Your task to perform on an android device: uninstall "The Home Depot" Image 0: 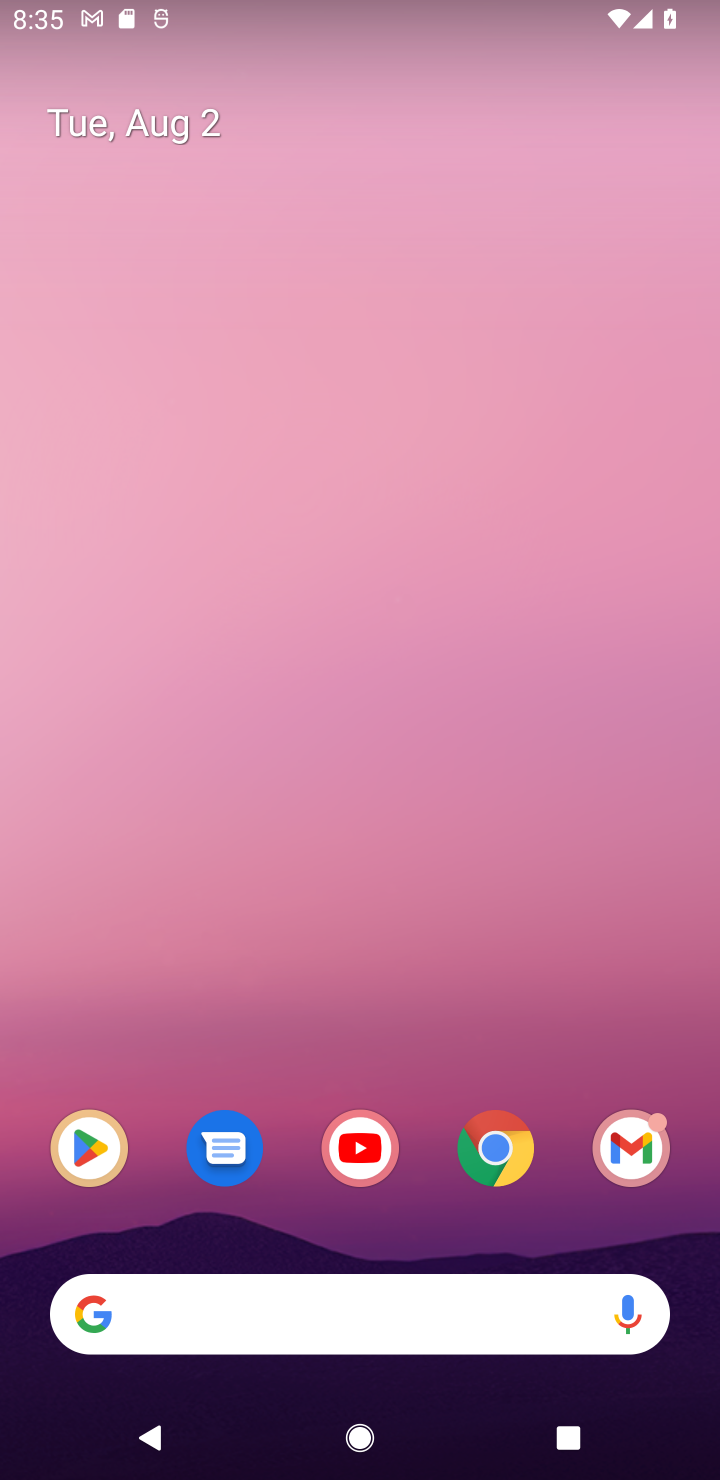
Step 0: drag from (366, 662) to (172, 28)
Your task to perform on an android device: uninstall "The Home Depot" Image 1: 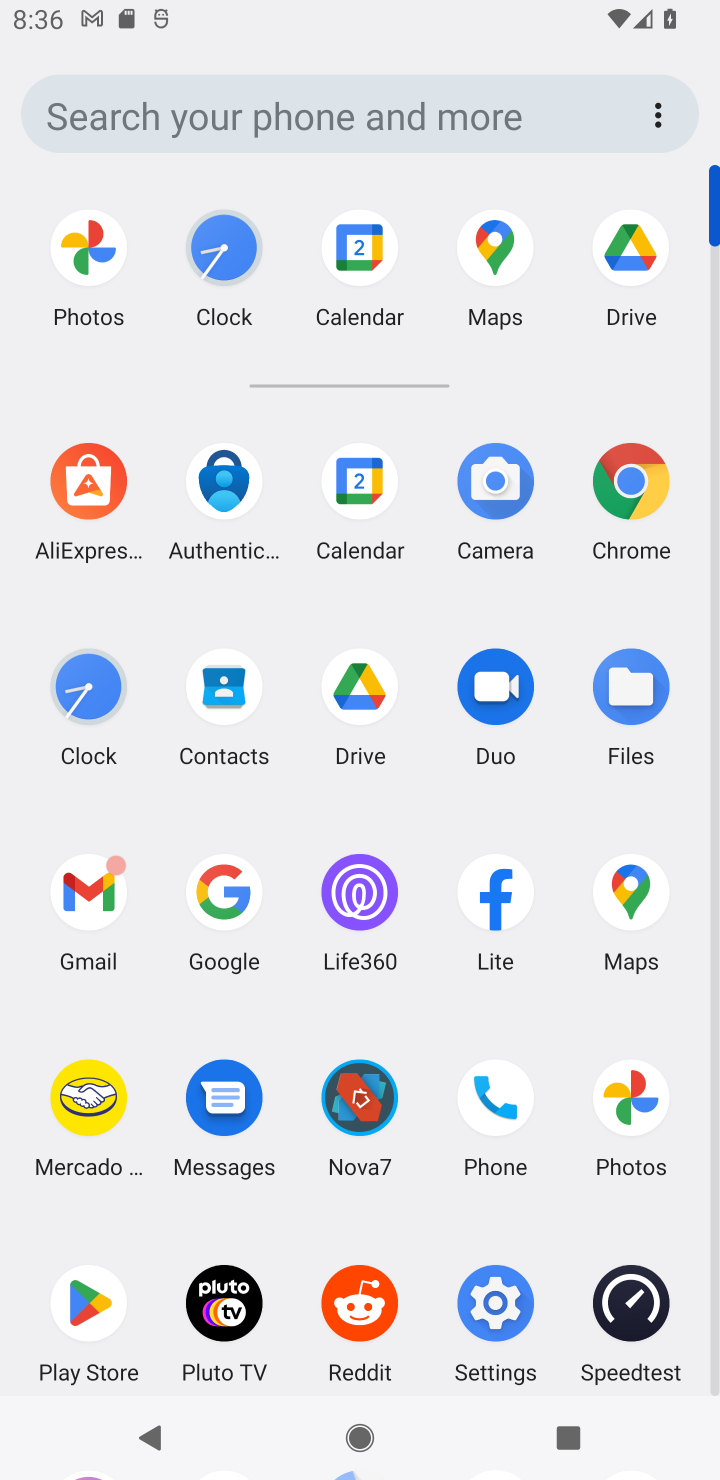
Step 1: click (72, 1293)
Your task to perform on an android device: uninstall "The Home Depot" Image 2: 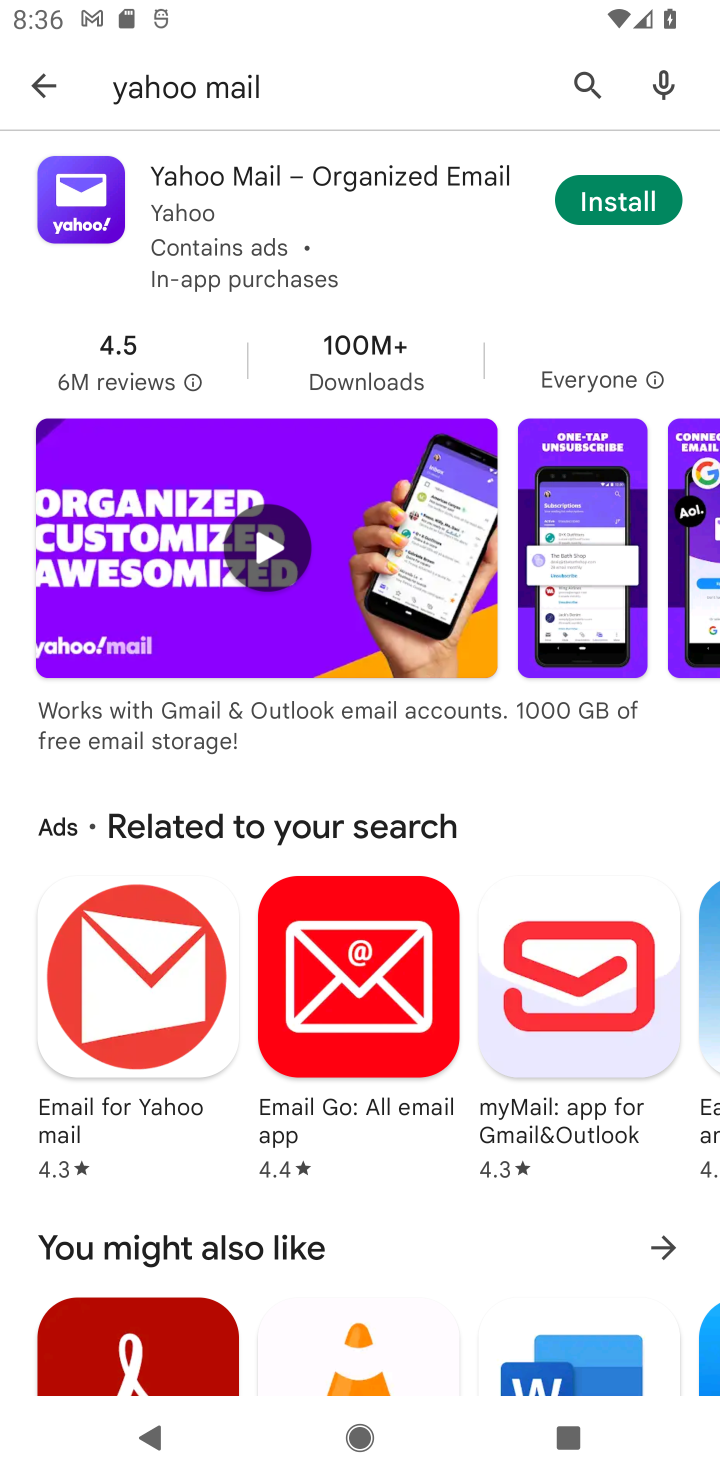
Step 2: press back button
Your task to perform on an android device: uninstall "The Home Depot" Image 3: 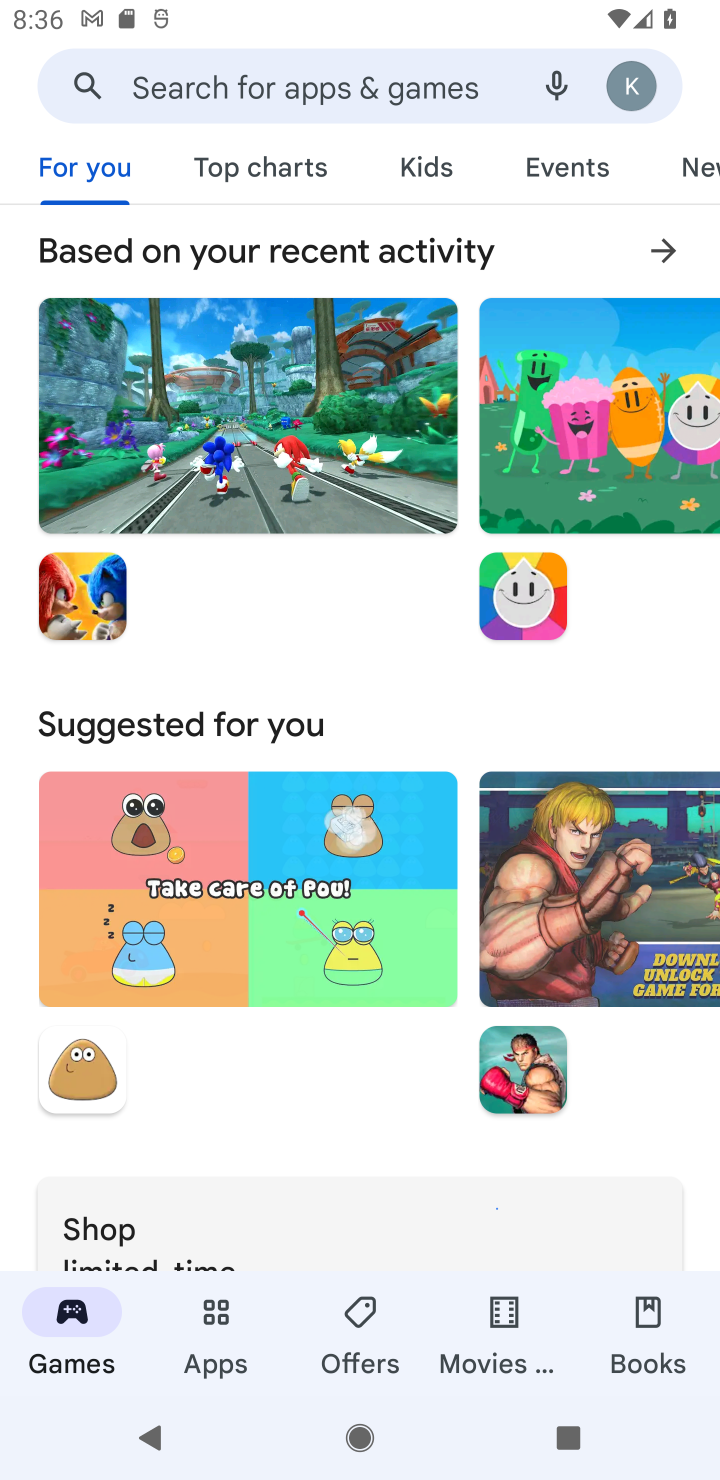
Step 3: click (256, 87)
Your task to perform on an android device: uninstall "The Home Depot" Image 4: 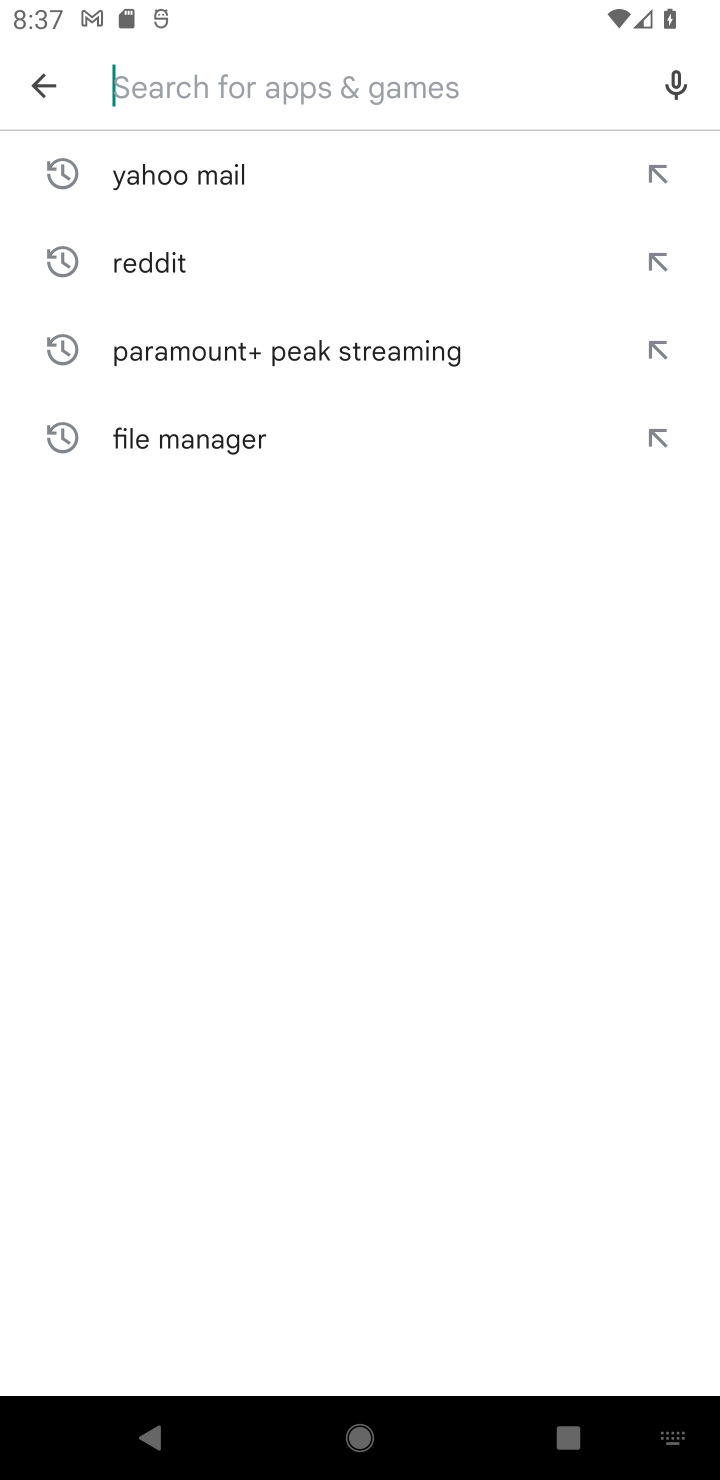
Step 4: type "The Home Depot"
Your task to perform on an android device: uninstall "The Home Depot" Image 5: 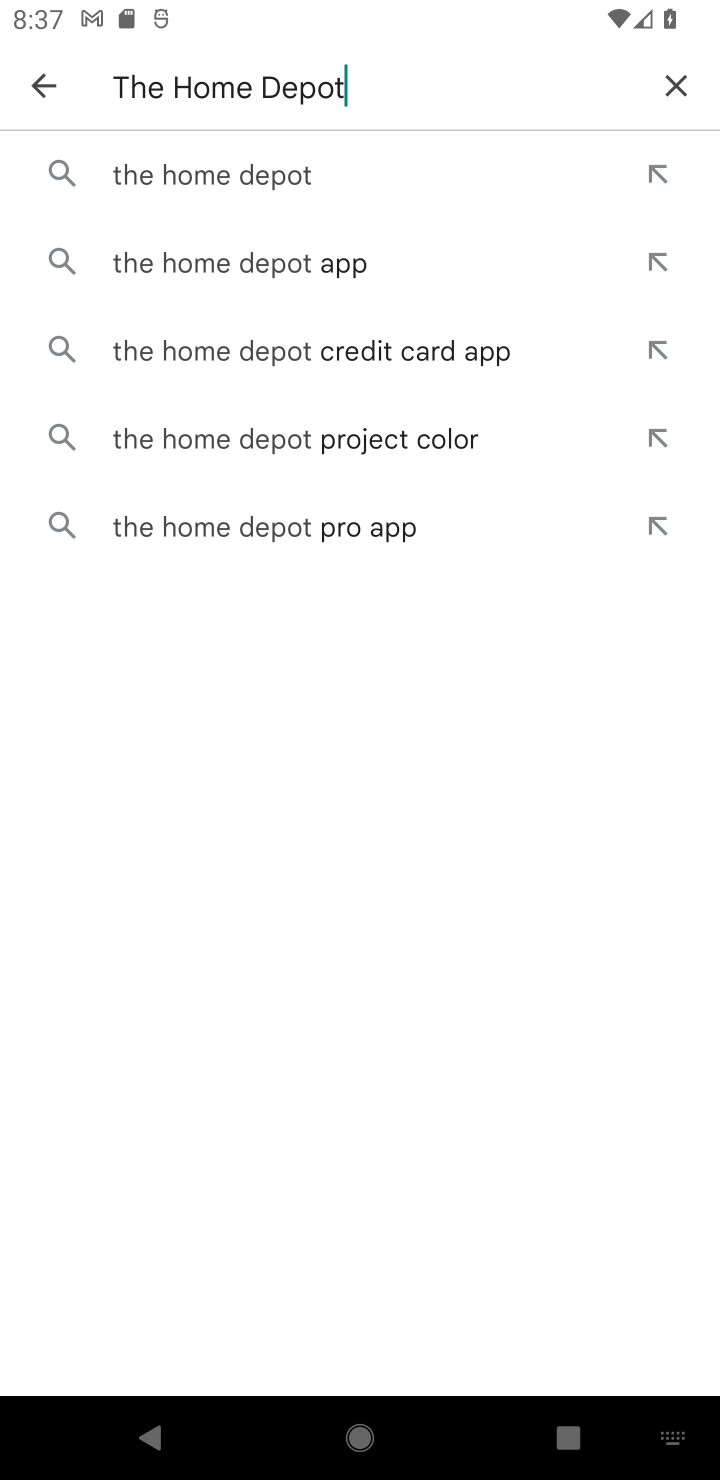
Step 5: click (260, 172)
Your task to perform on an android device: uninstall "The Home Depot" Image 6: 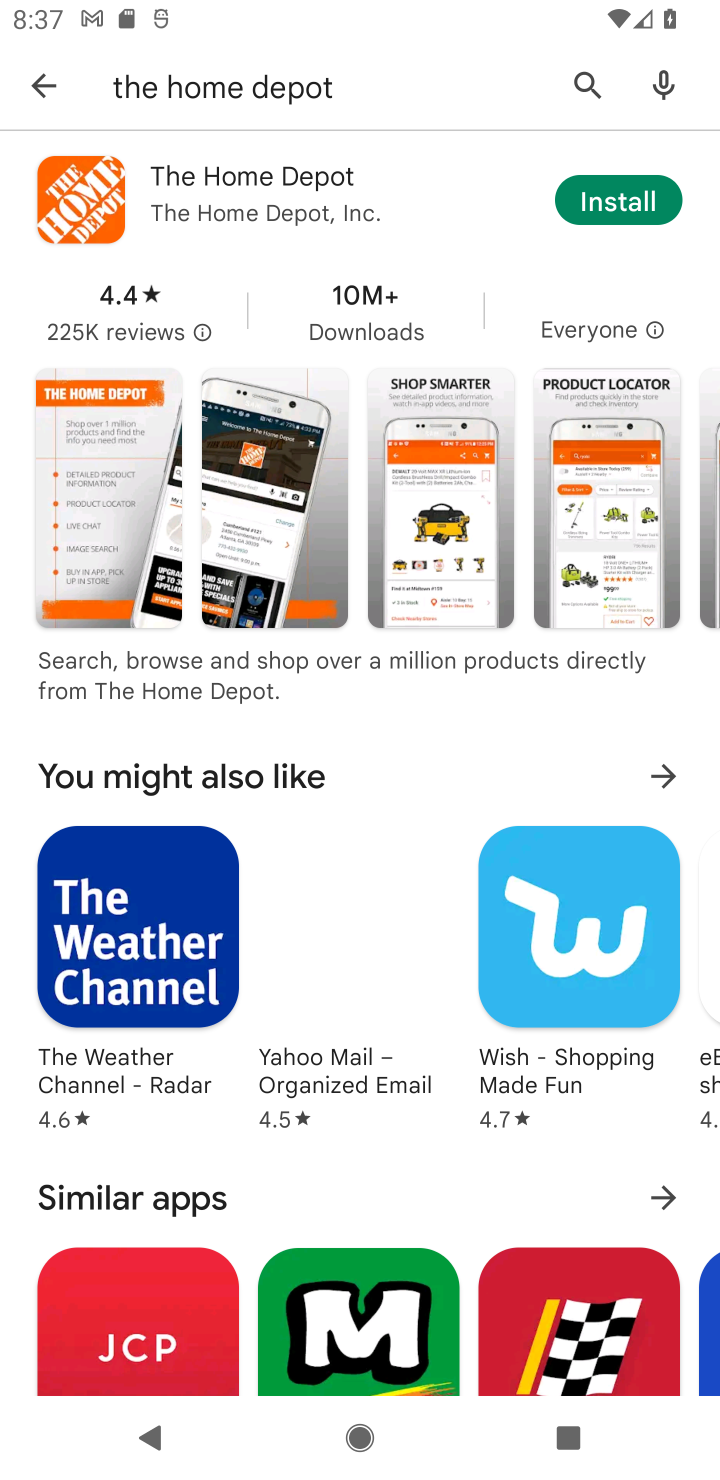
Step 6: task complete